Your task to perform on an android device: Go to calendar. Show me events next week Image 0: 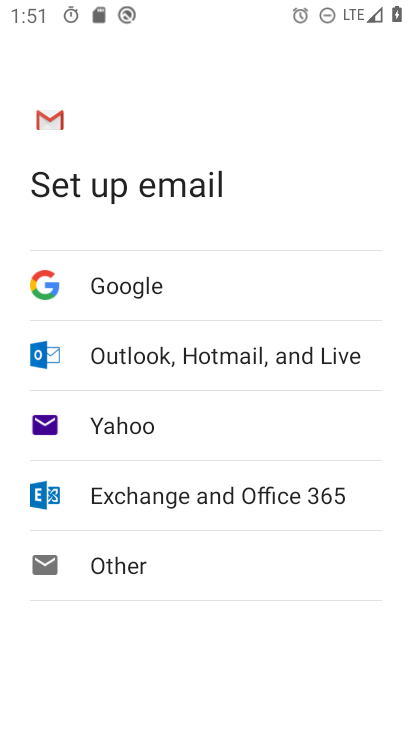
Step 0: press home button
Your task to perform on an android device: Go to calendar. Show me events next week Image 1: 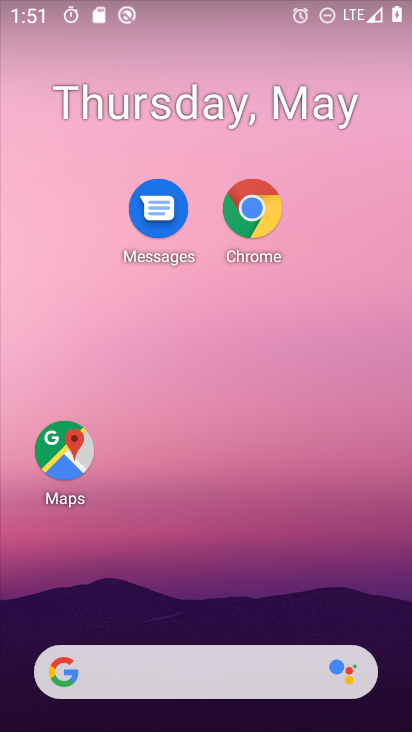
Step 1: drag from (220, 563) to (56, 223)
Your task to perform on an android device: Go to calendar. Show me events next week Image 2: 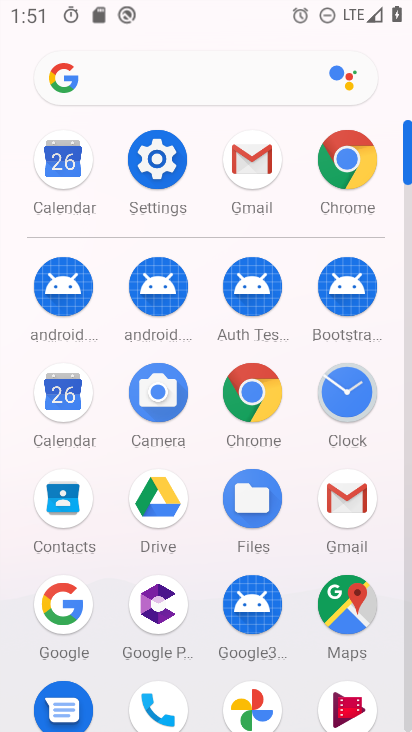
Step 2: click (61, 429)
Your task to perform on an android device: Go to calendar. Show me events next week Image 3: 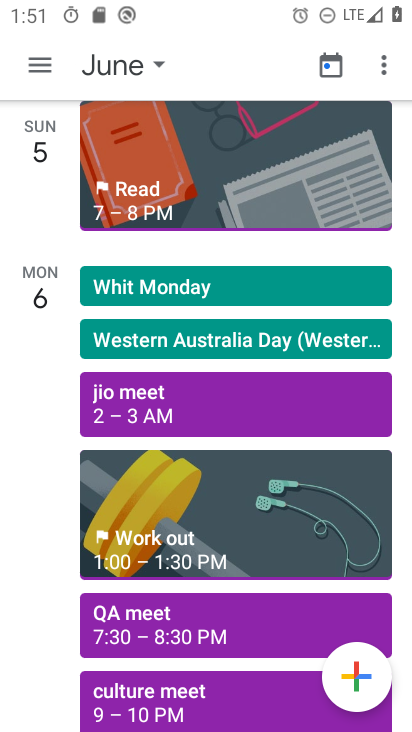
Step 3: click (63, 429)
Your task to perform on an android device: Go to calendar. Show me events next week Image 4: 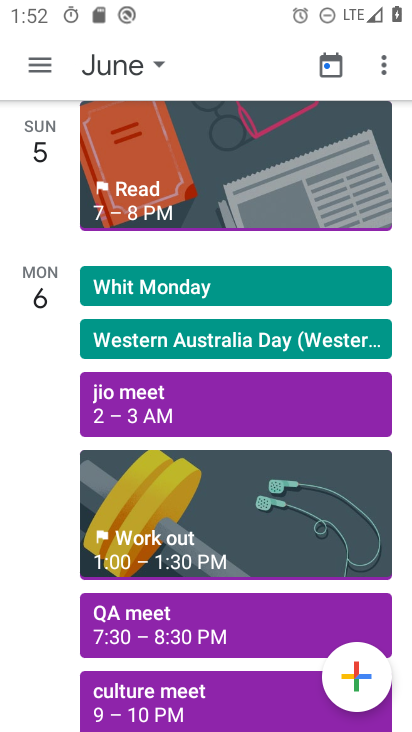
Step 4: click (99, 67)
Your task to perform on an android device: Go to calendar. Show me events next week Image 5: 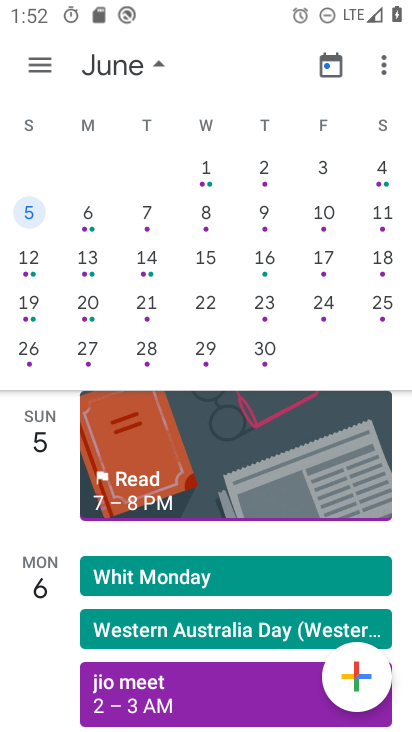
Step 5: drag from (45, 287) to (382, 272)
Your task to perform on an android device: Go to calendar. Show me events next week Image 6: 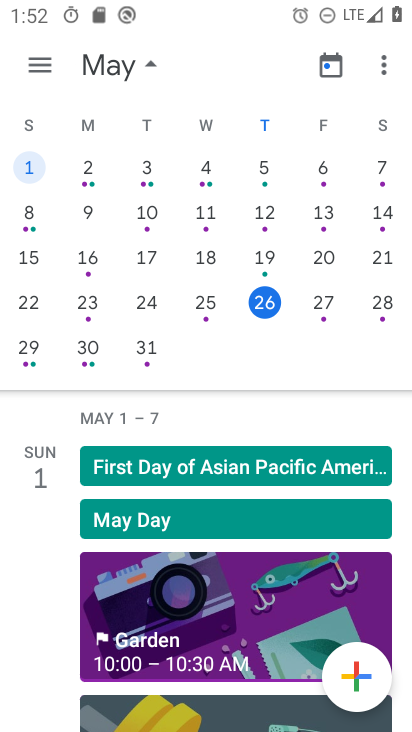
Step 6: click (27, 353)
Your task to perform on an android device: Go to calendar. Show me events next week Image 7: 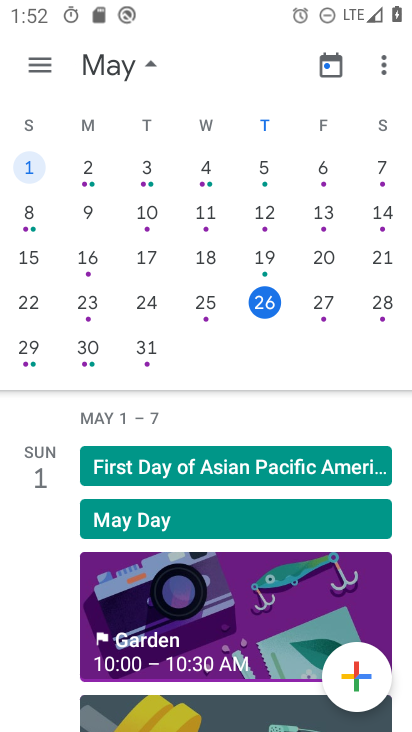
Step 7: click (29, 71)
Your task to perform on an android device: Go to calendar. Show me events next week Image 8: 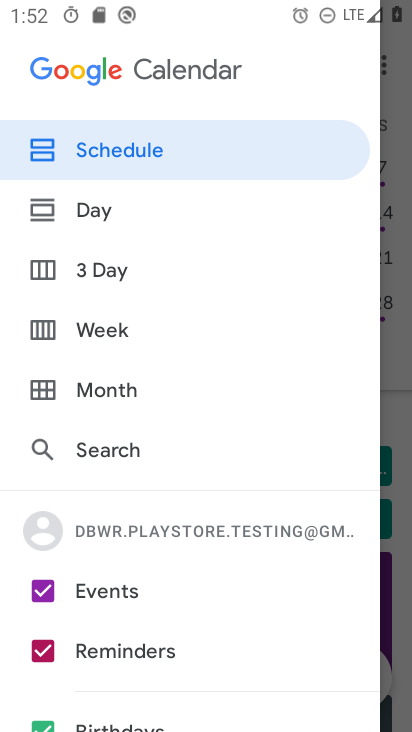
Step 8: click (111, 338)
Your task to perform on an android device: Go to calendar. Show me events next week Image 9: 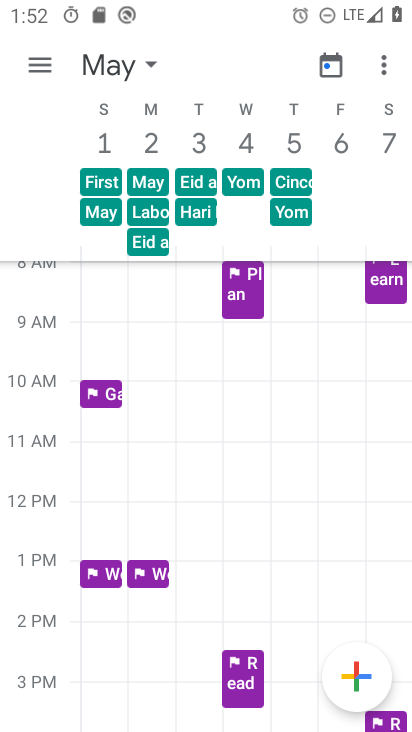
Step 9: click (102, 68)
Your task to perform on an android device: Go to calendar. Show me events next week Image 10: 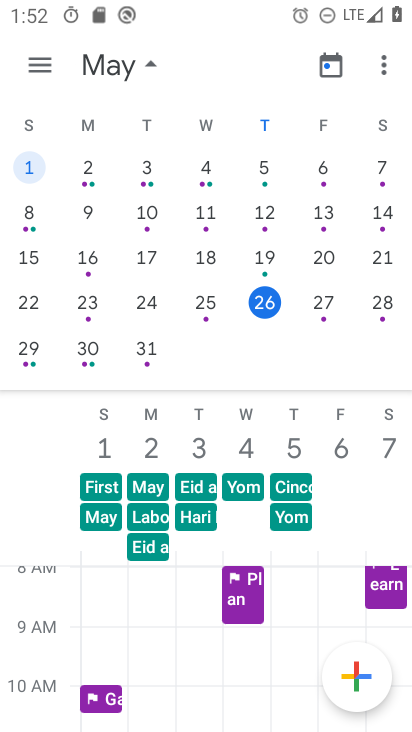
Step 10: click (27, 356)
Your task to perform on an android device: Go to calendar. Show me events next week Image 11: 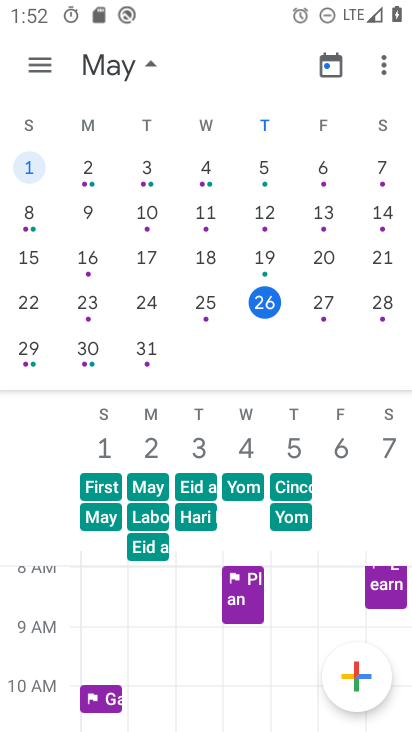
Step 11: click (31, 351)
Your task to perform on an android device: Go to calendar. Show me events next week Image 12: 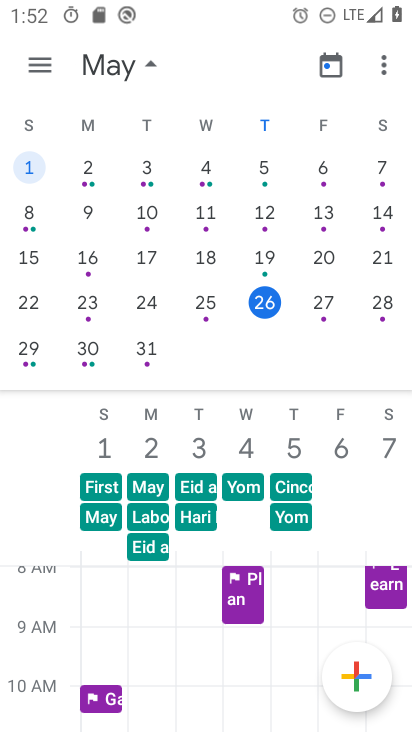
Step 12: click (31, 351)
Your task to perform on an android device: Go to calendar. Show me events next week Image 13: 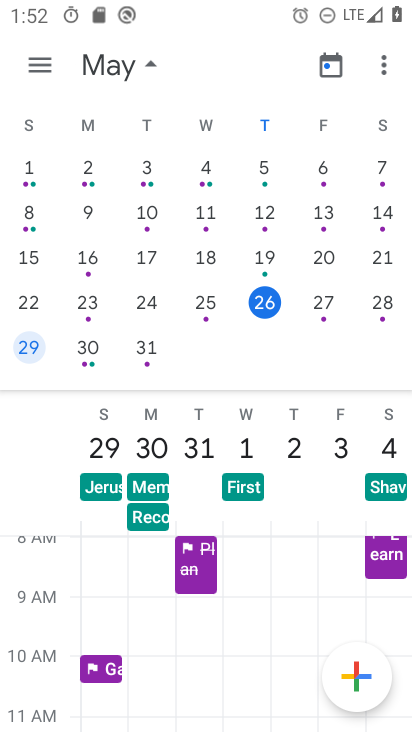
Step 13: task complete